Your task to perform on an android device: toggle improve location accuracy Image 0: 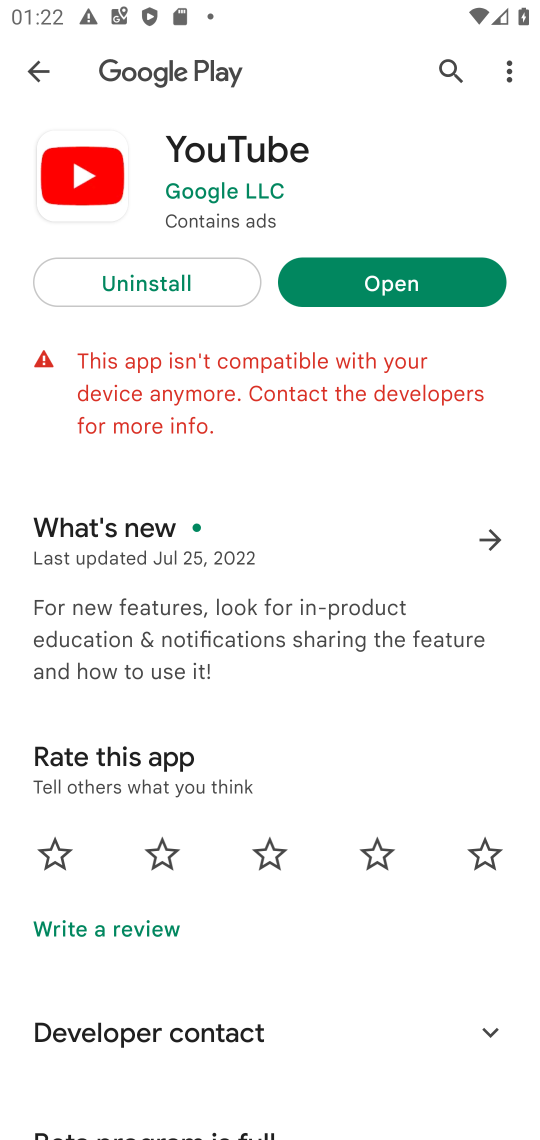
Step 0: press home button
Your task to perform on an android device: toggle improve location accuracy Image 1: 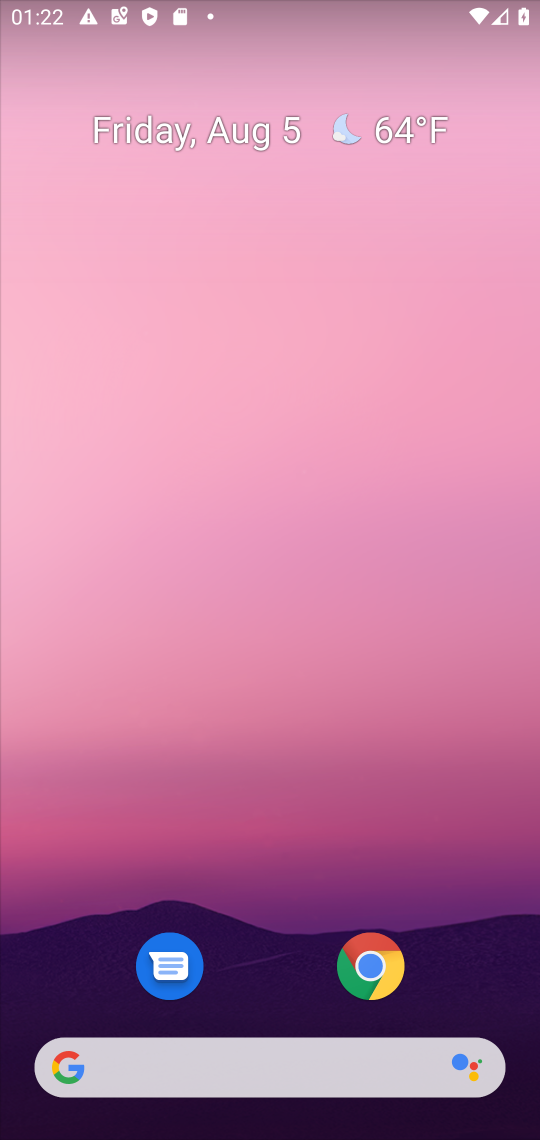
Step 1: drag from (285, 787) to (316, 75)
Your task to perform on an android device: toggle improve location accuracy Image 2: 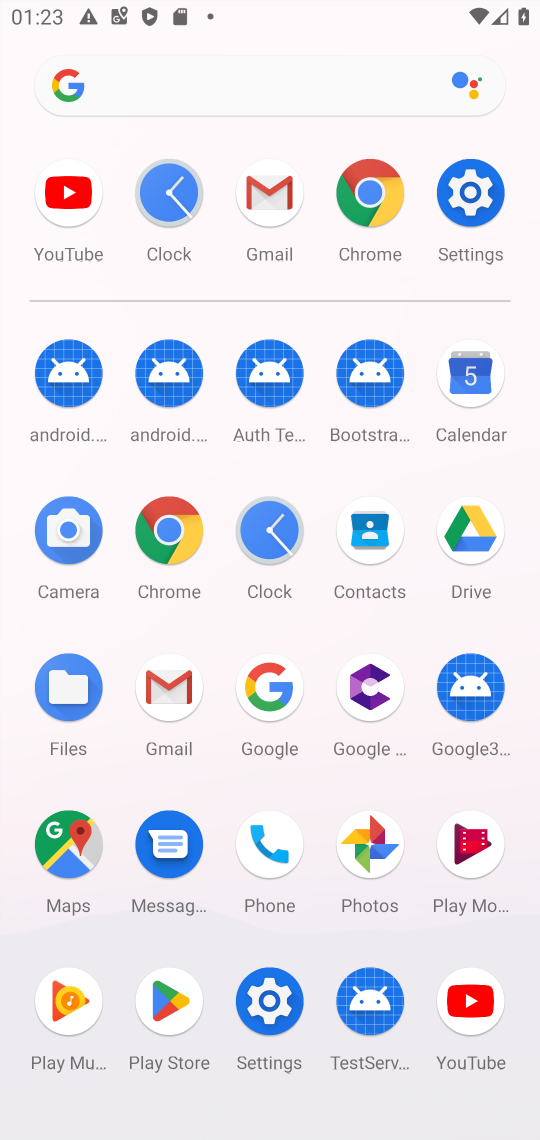
Step 2: click (466, 202)
Your task to perform on an android device: toggle improve location accuracy Image 3: 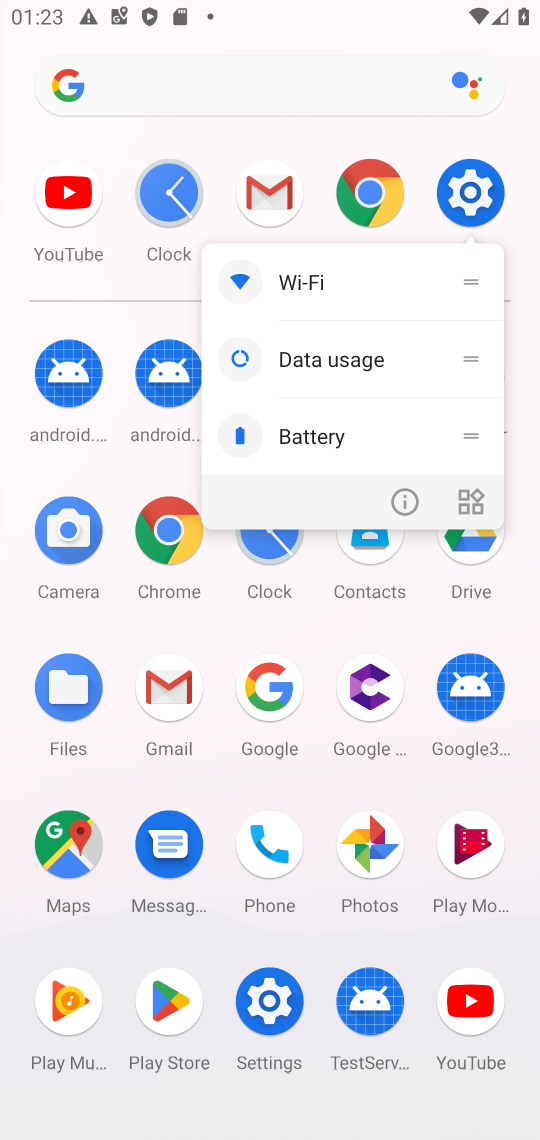
Step 3: click (473, 181)
Your task to perform on an android device: toggle improve location accuracy Image 4: 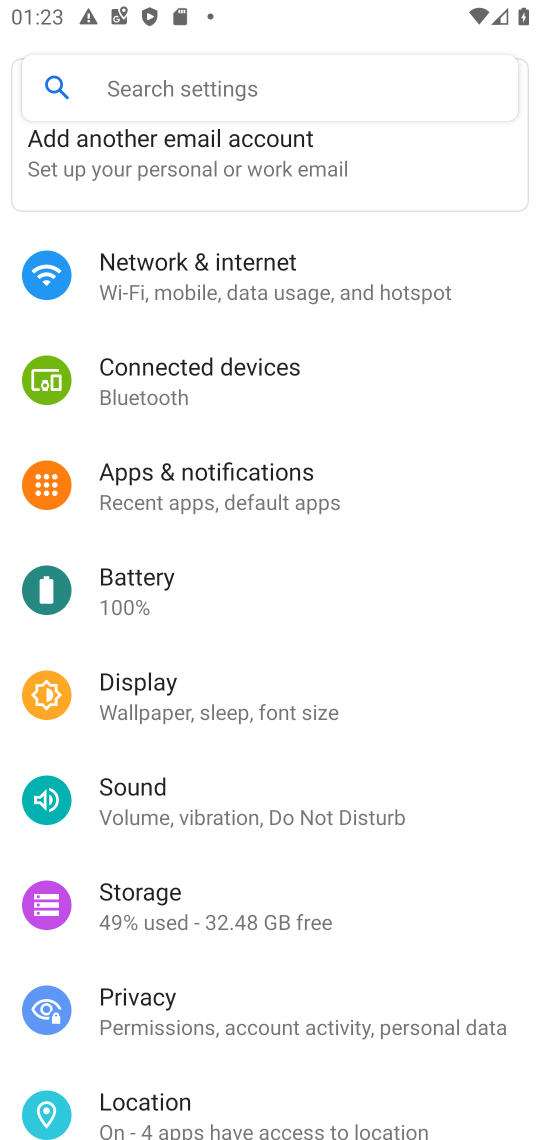
Step 4: drag from (247, 922) to (237, 596)
Your task to perform on an android device: toggle improve location accuracy Image 5: 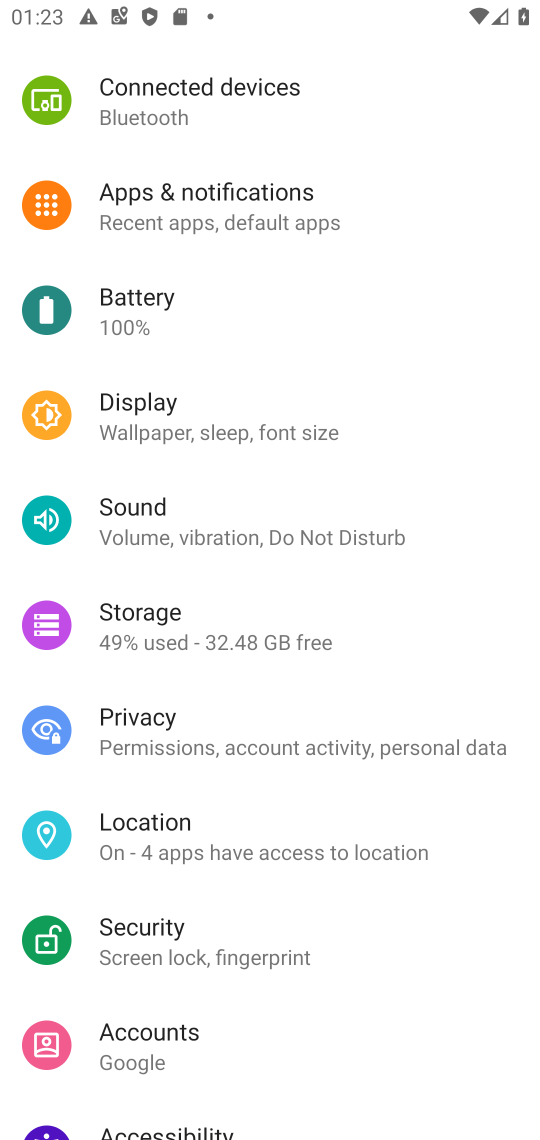
Step 5: click (252, 846)
Your task to perform on an android device: toggle improve location accuracy Image 6: 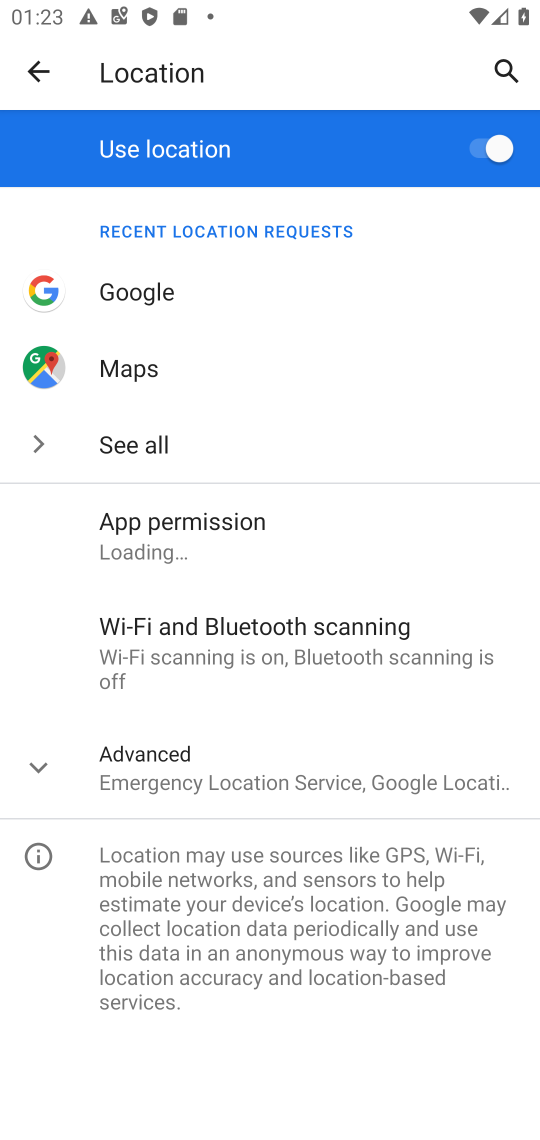
Step 6: click (41, 763)
Your task to perform on an android device: toggle improve location accuracy Image 7: 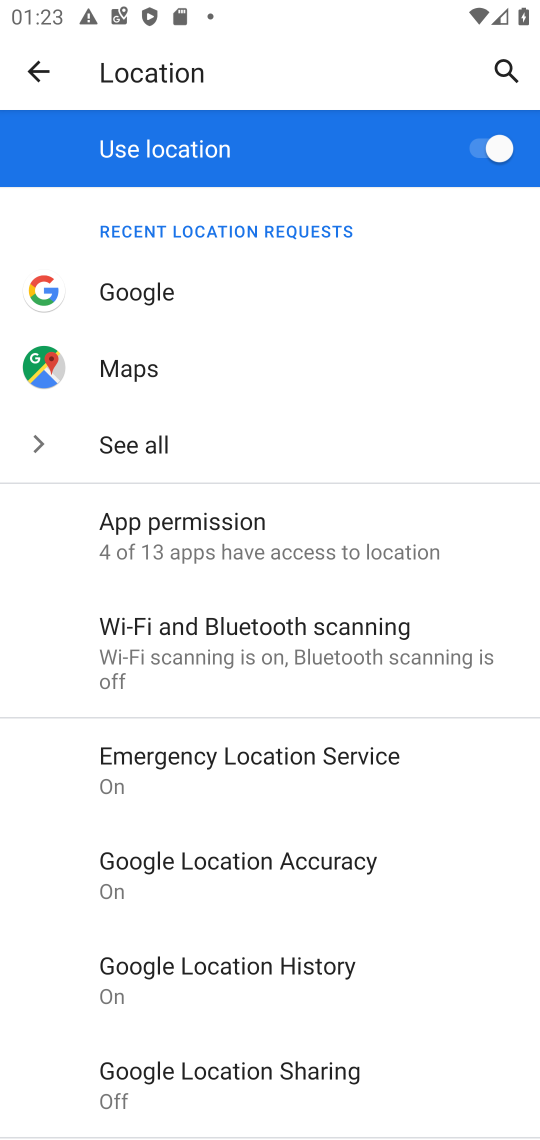
Step 7: click (241, 860)
Your task to perform on an android device: toggle improve location accuracy Image 8: 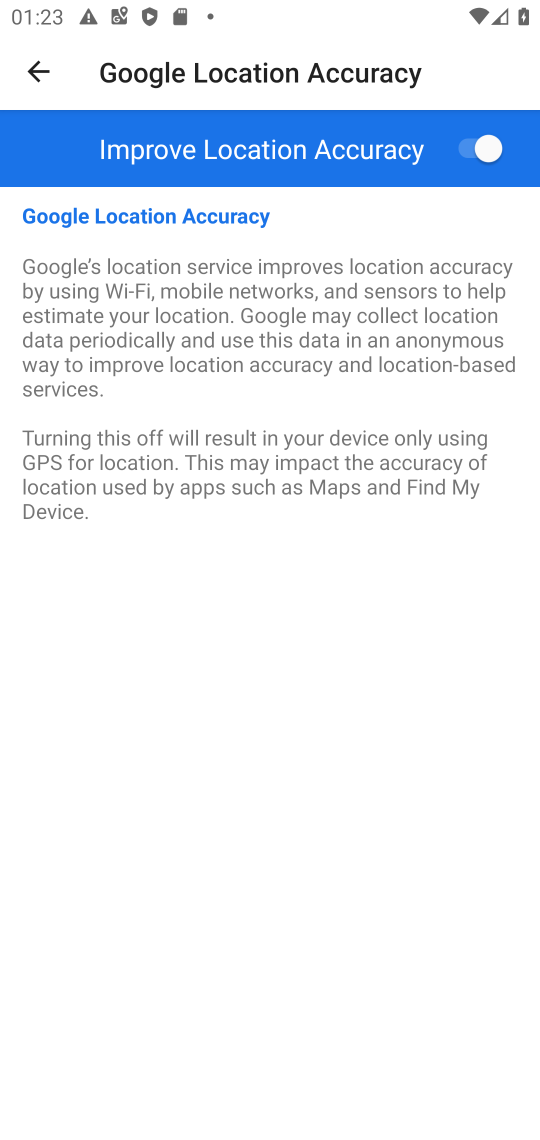
Step 8: click (476, 151)
Your task to perform on an android device: toggle improve location accuracy Image 9: 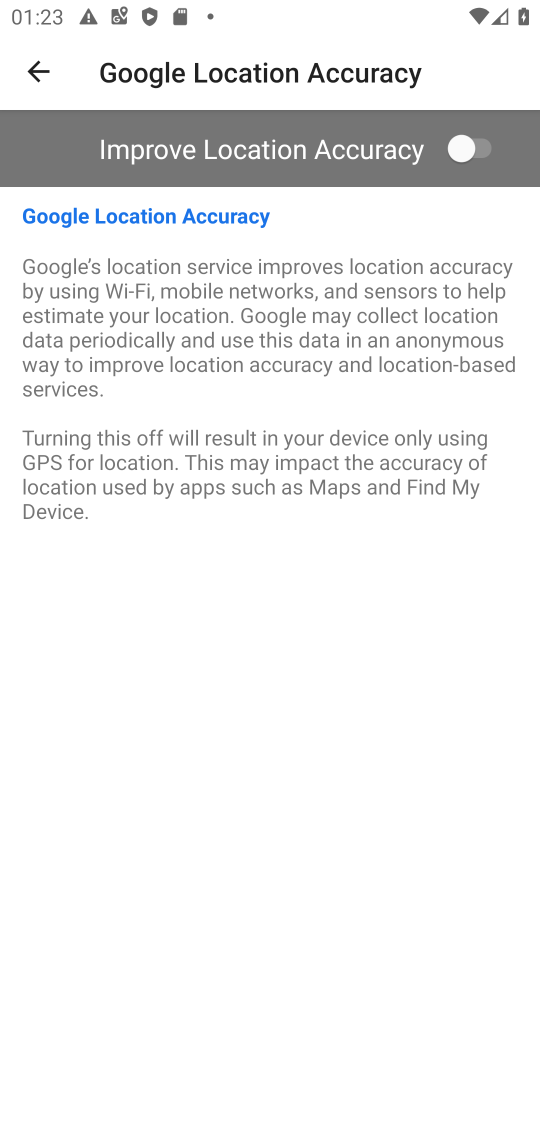
Step 9: task complete